Your task to perform on an android device: change keyboard looks Image 0: 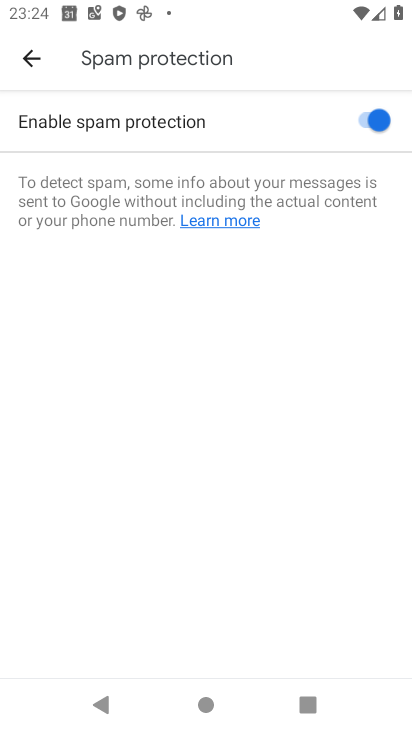
Step 0: press home button
Your task to perform on an android device: change keyboard looks Image 1: 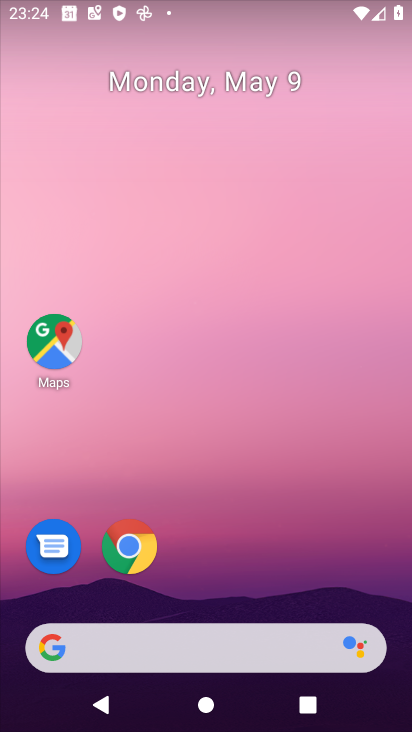
Step 1: drag from (219, 655) to (233, 4)
Your task to perform on an android device: change keyboard looks Image 2: 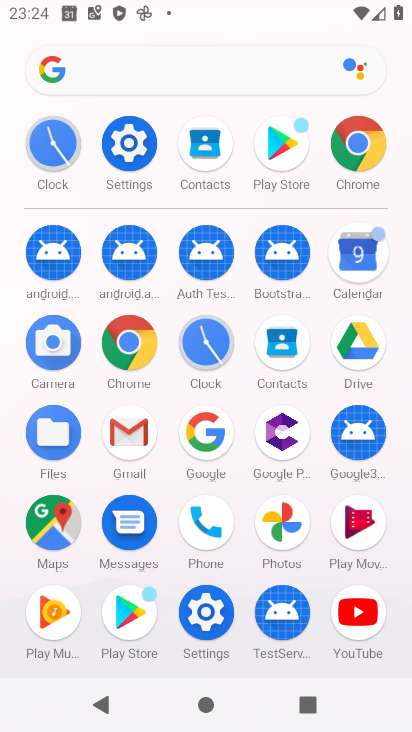
Step 2: click (134, 136)
Your task to perform on an android device: change keyboard looks Image 3: 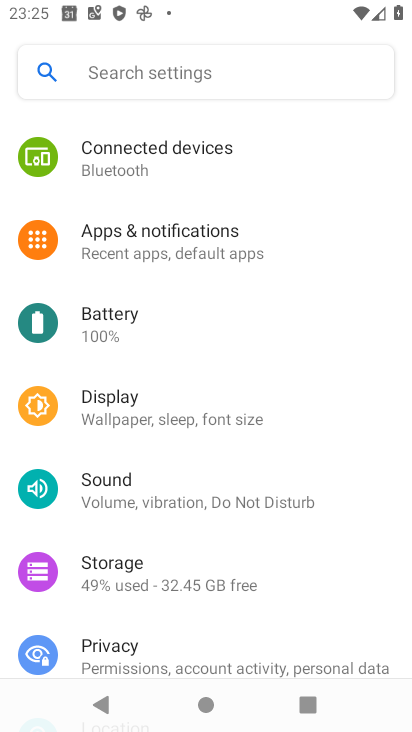
Step 3: drag from (216, 562) to (248, 119)
Your task to perform on an android device: change keyboard looks Image 4: 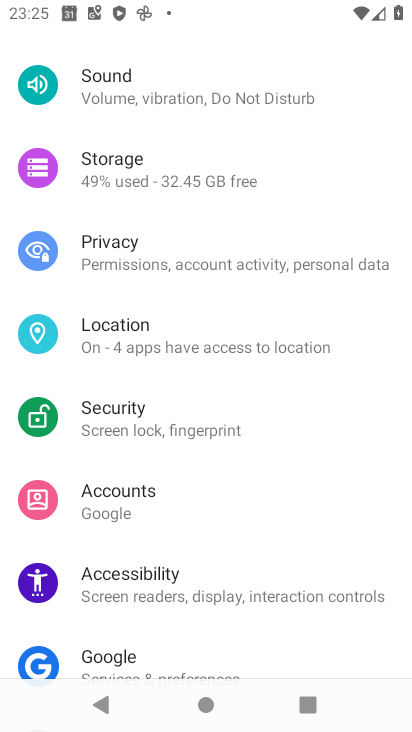
Step 4: drag from (214, 585) to (164, 219)
Your task to perform on an android device: change keyboard looks Image 5: 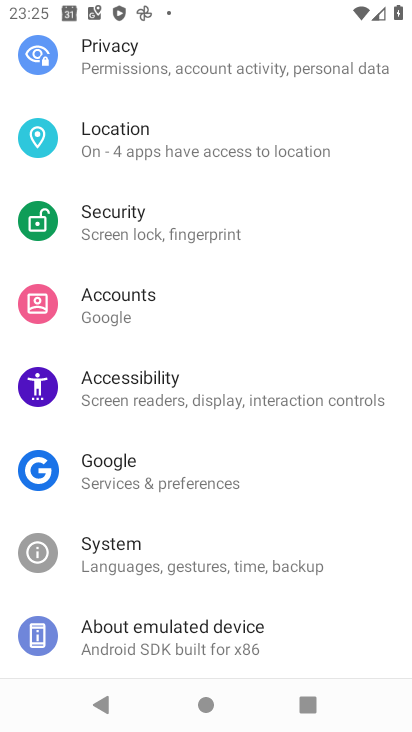
Step 5: click (247, 566)
Your task to perform on an android device: change keyboard looks Image 6: 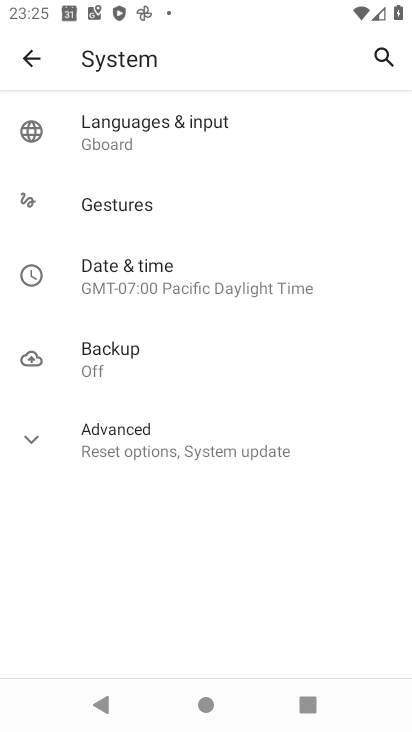
Step 6: click (142, 129)
Your task to perform on an android device: change keyboard looks Image 7: 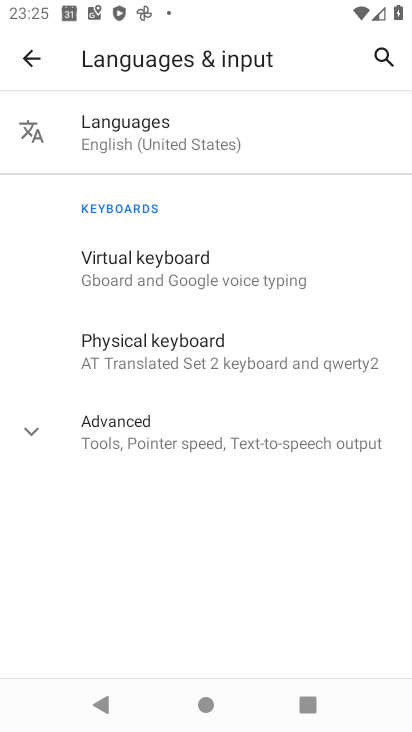
Step 7: click (148, 269)
Your task to perform on an android device: change keyboard looks Image 8: 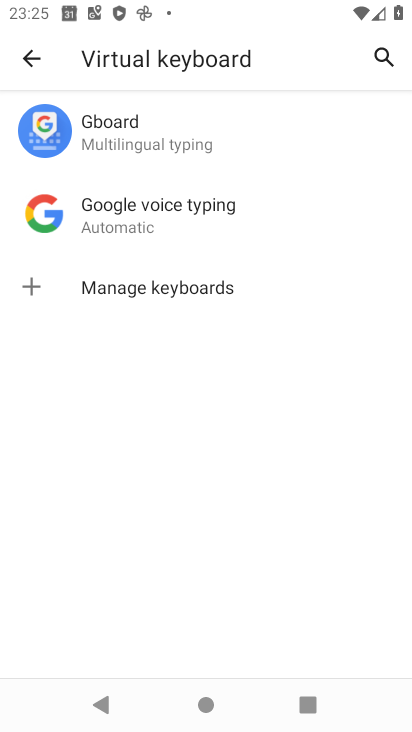
Step 8: click (201, 127)
Your task to perform on an android device: change keyboard looks Image 9: 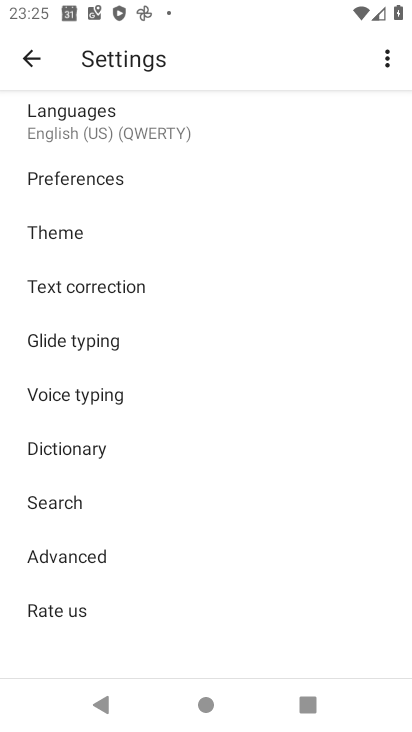
Step 9: click (66, 219)
Your task to perform on an android device: change keyboard looks Image 10: 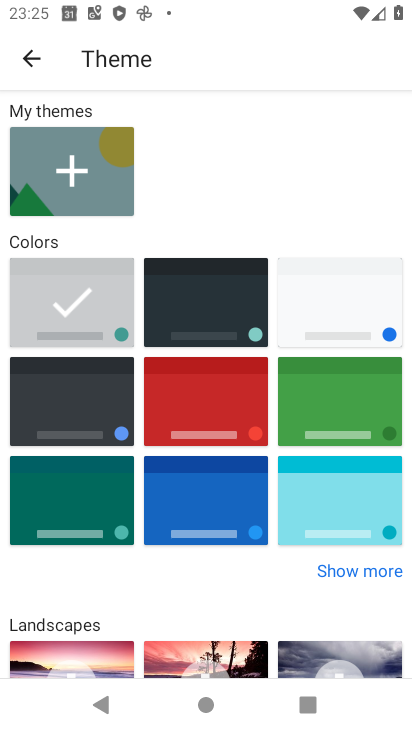
Step 10: click (202, 319)
Your task to perform on an android device: change keyboard looks Image 11: 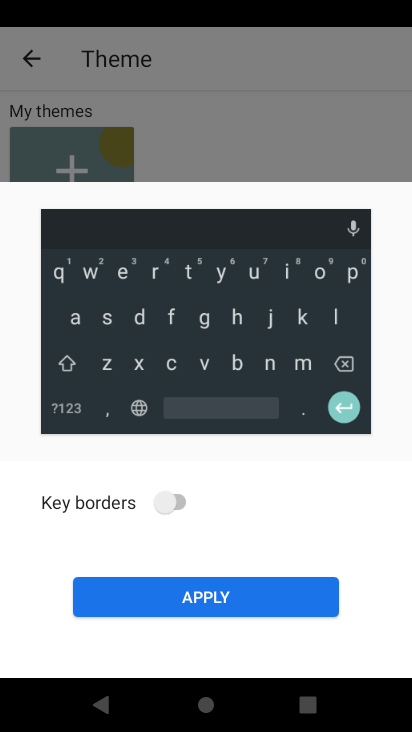
Step 11: click (252, 600)
Your task to perform on an android device: change keyboard looks Image 12: 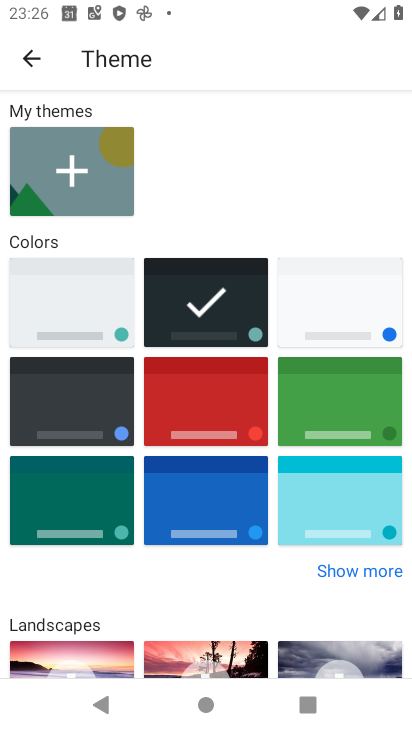
Step 12: task complete